Your task to perform on an android device: change the clock display to show seconds Image 0: 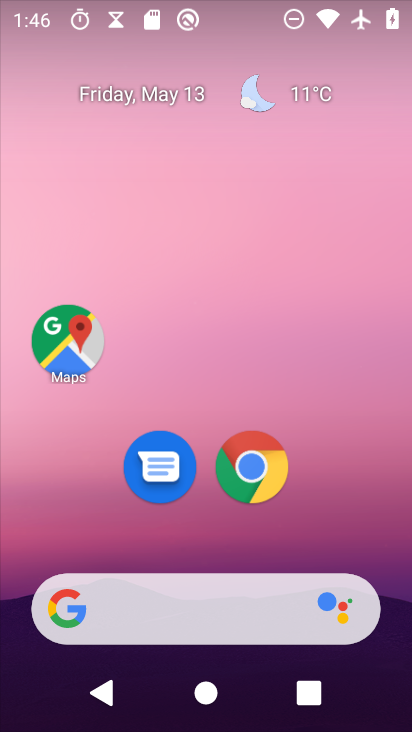
Step 0: drag from (342, 413) to (262, 75)
Your task to perform on an android device: change the clock display to show seconds Image 1: 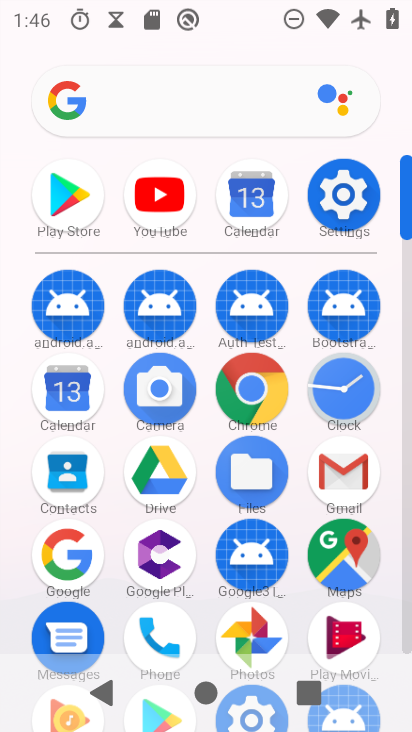
Step 1: click (341, 374)
Your task to perform on an android device: change the clock display to show seconds Image 2: 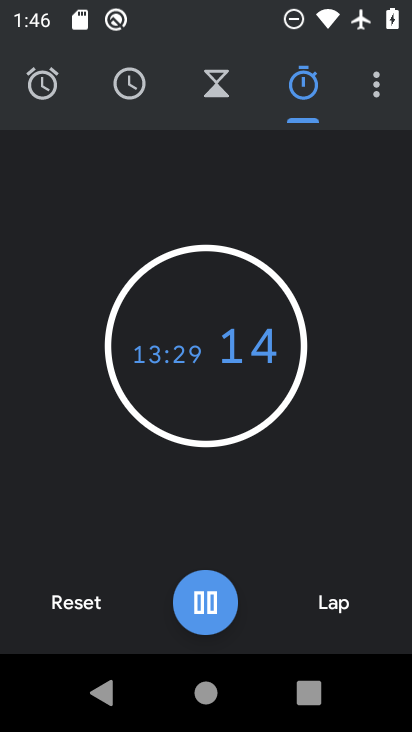
Step 2: click (375, 83)
Your task to perform on an android device: change the clock display to show seconds Image 3: 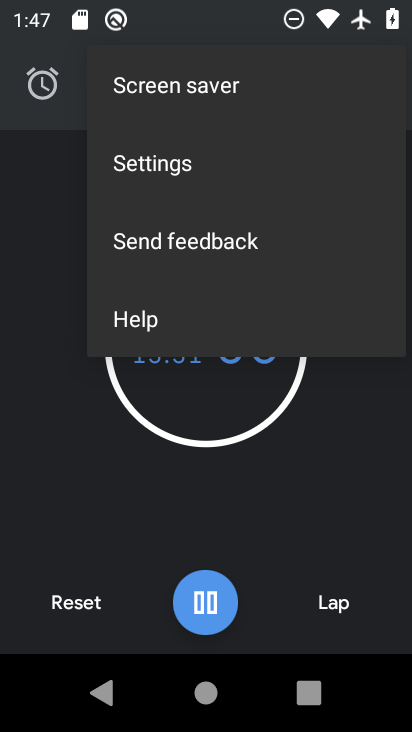
Step 3: click (202, 156)
Your task to perform on an android device: change the clock display to show seconds Image 4: 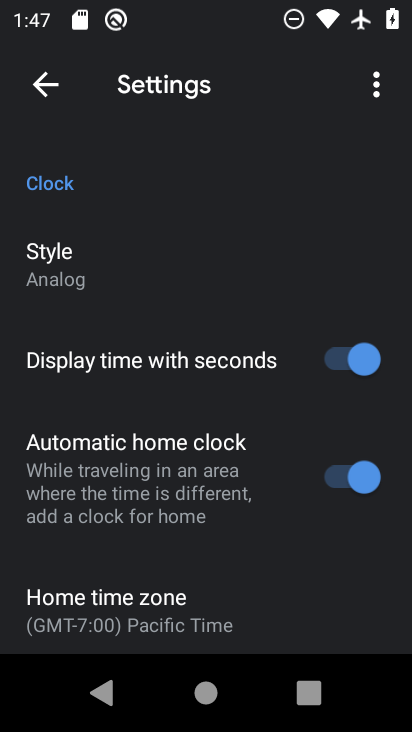
Step 4: task complete